Your task to perform on an android device: allow notifications from all sites in the chrome app Image 0: 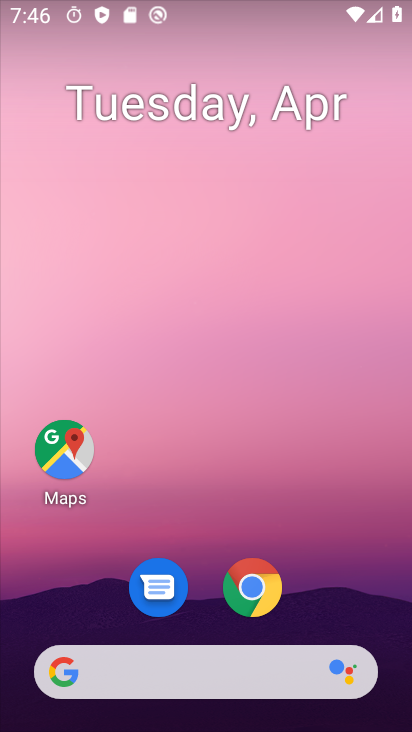
Step 0: click (267, 603)
Your task to perform on an android device: allow notifications from all sites in the chrome app Image 1: 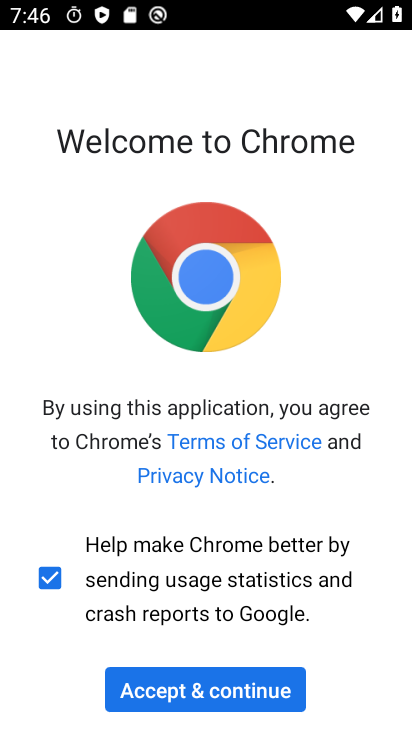
Step 1: click (283, 677)
Your task to perform on an android device: allow notifications from all sites in the chrome app Image 2: 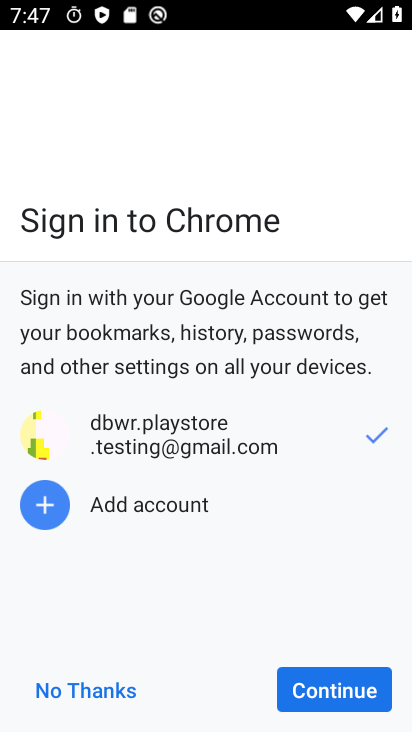
Step 2: click (298, 684)
Your task to perform on an android device: allow notifications from all sites in the chrome app Image 3: 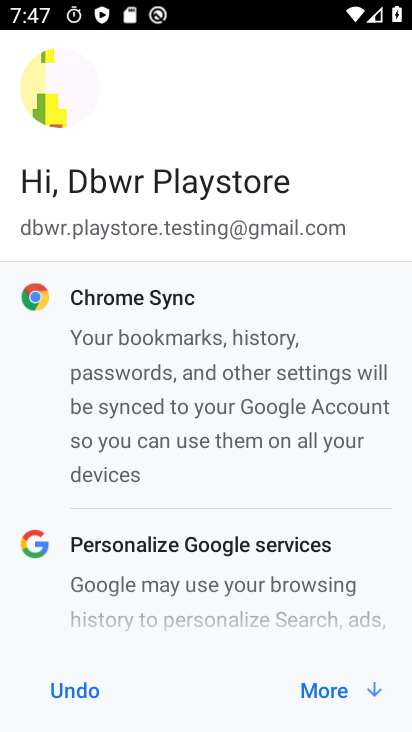
Step 3: click (298, 683)
Your task to perform on an android device: allow notifications from all sites in the chrome app Image 4: 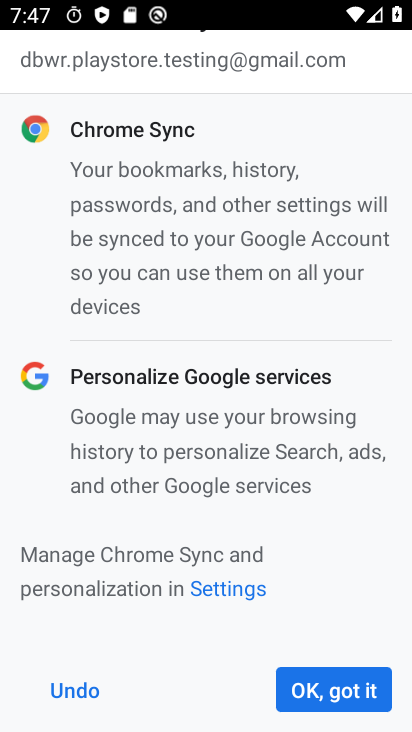
Step 4: click (360, 684)
Your task to perform on an android device: allow notifications from all sites in the chrome app Image 5: 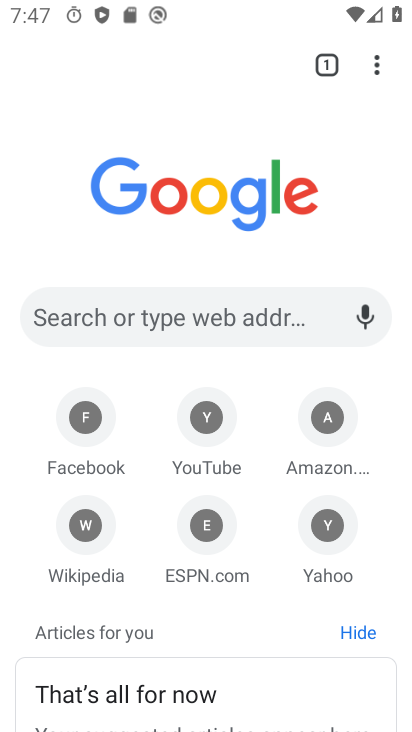
Step 5: click (377, 71)
Your task to perform on an android device: allow notifications from all sites in the chrome app Image 6: 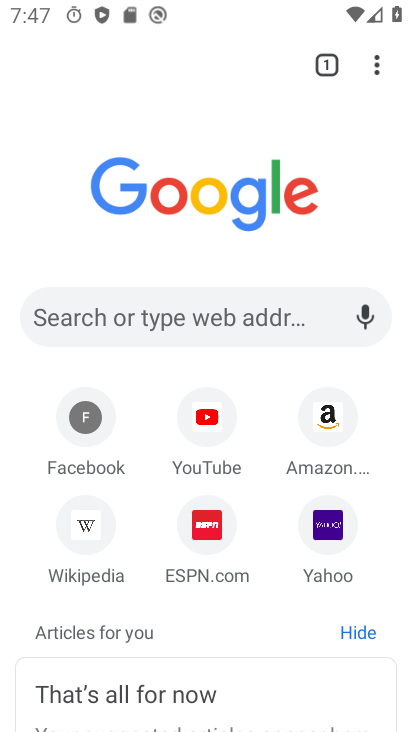
Step 6: click (375, 66)
Your task to perform on an android device: allow notifications from all sites in the chrome app Image 7: 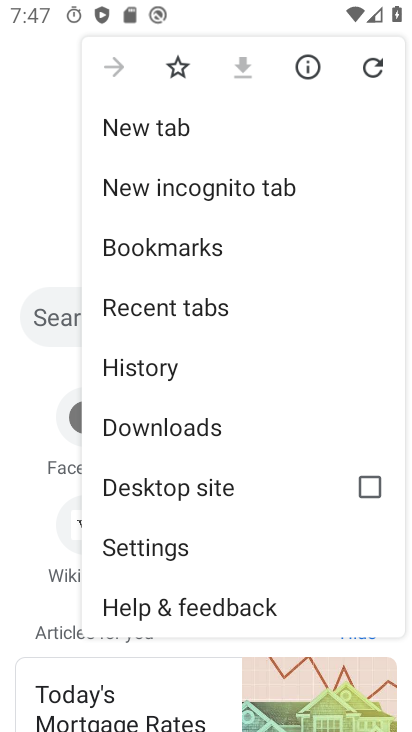
Step 7: click (269, 545)
Your task to perform on an android device: allow notifications from all sites in the chrome app Image 8: 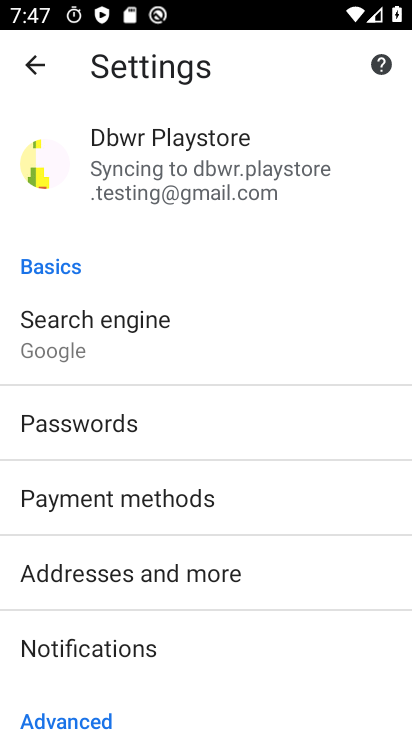
Step 8: drag from (197, 608) to (201, 148)
Your task to perform on an android device: allow notifications from all sites in the chrome app Image 9: 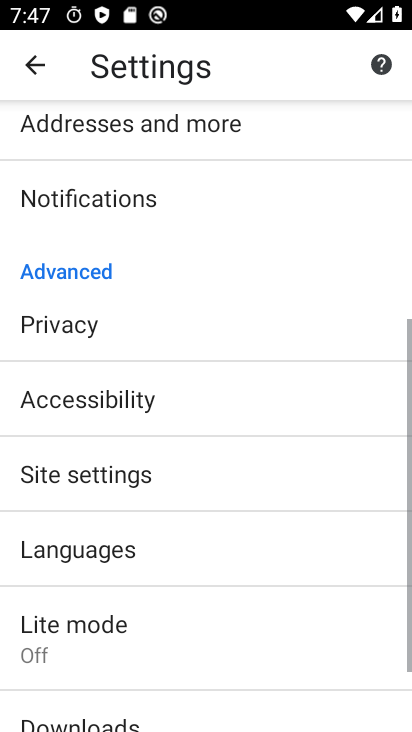
Step 9: click (138, 485)
Your task to perform on an android device: allow notifications from all sites in the chrome app Image 10: 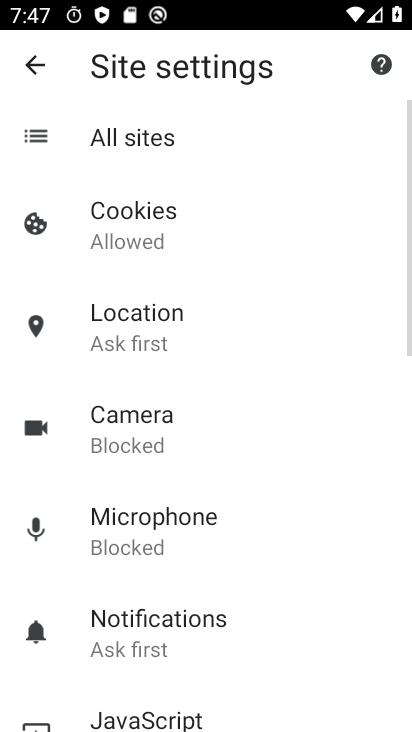
Step 10: click (237, 223)
Your task to perform on an android device: allow notifications from all sites in the chrome app Image 11: 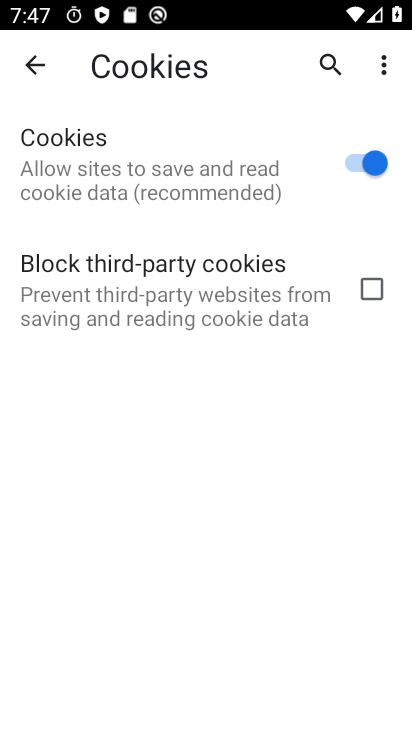
Step 11: task complete